Your task to perform on an android device: turn off picture-in-picture Image 0: 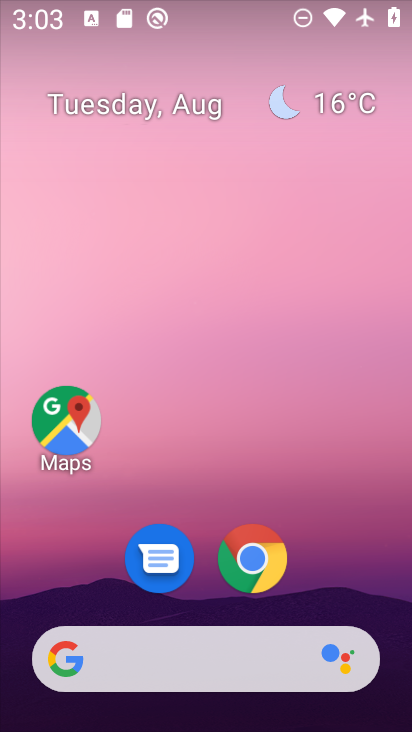
Step 0: click (247, 529)
Your task to perform on an android device: turn off picture-in-picture Image 1: 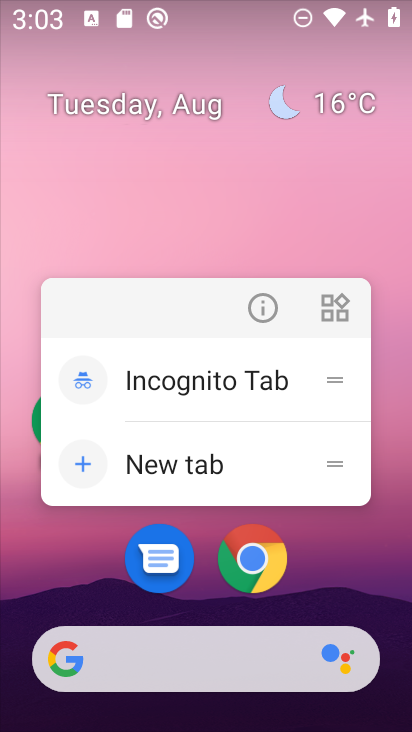
Step 1: click (274, 298)
Your task to perform on an android device: turn off picture-in-picture Image 2: 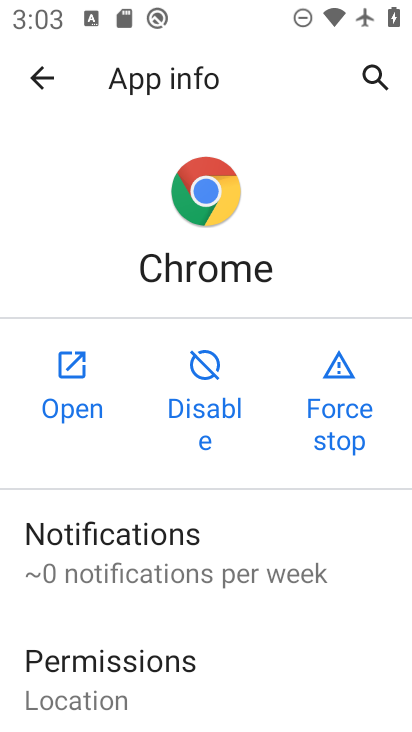
Step 2: drag from (232, 659) to (215, 157)
Your task to perform on an android device: turn off picture-in-picture Image 3: 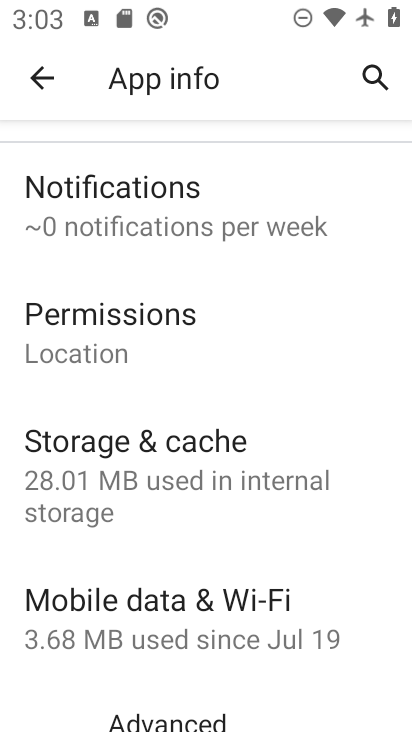
Step 3: drag from (183, 658) to (212, 167)
Your task to perform on an android device: turn off picture-in-picture Image 4: 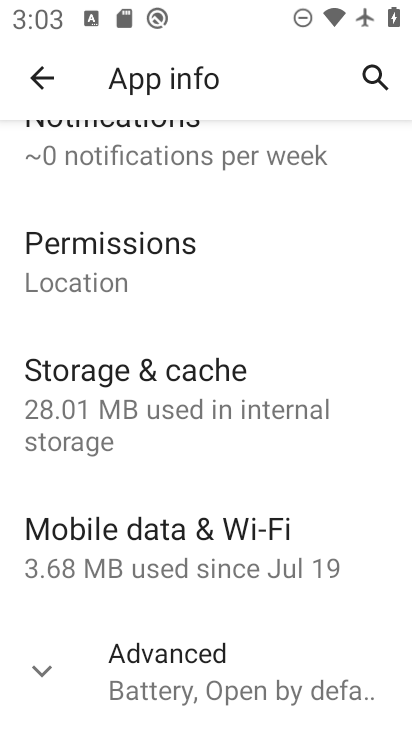
Step 4: click (180, 660)
Your task to perform on an android device: turn off picture-in-picture Image 5: 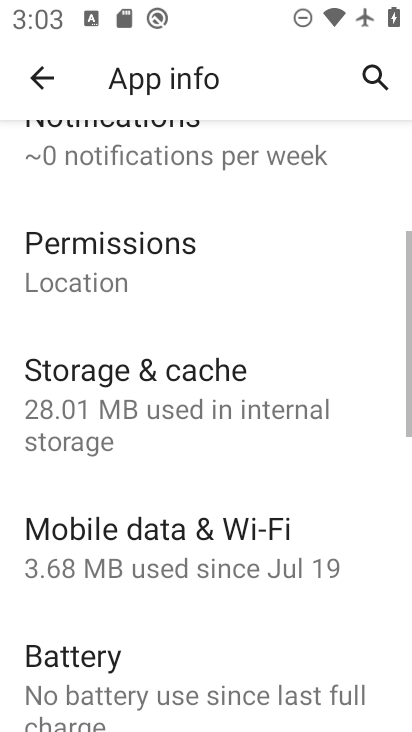
Step 5: drag from (206, 604) to (242, 124)
Your task to perform on an android device: turn off picture-in-picture Image 6: 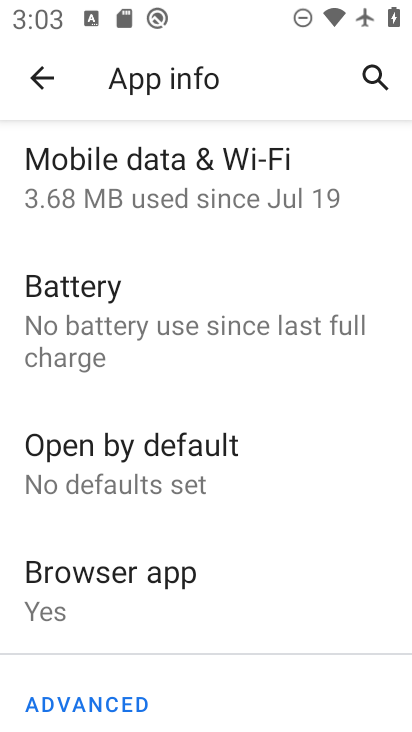
Step 6: drag from (202, 622) to (252, 76)
Your task to perform on an android device: turn off picture-in-picture Image 7: 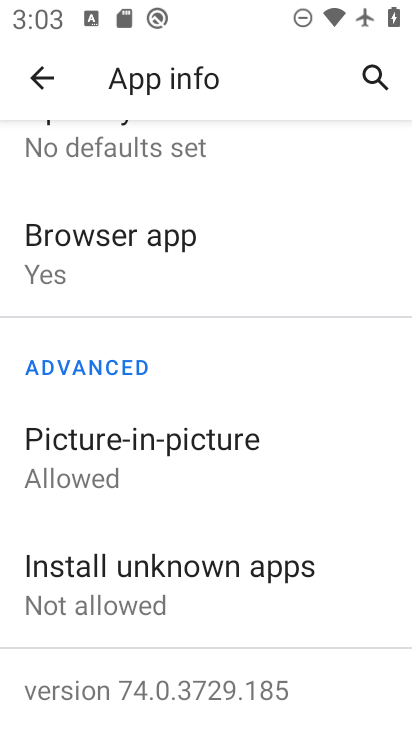
Step 7: click (212, 437)
Your task to perform on an android device: turn off picture-in-picture Image 8: 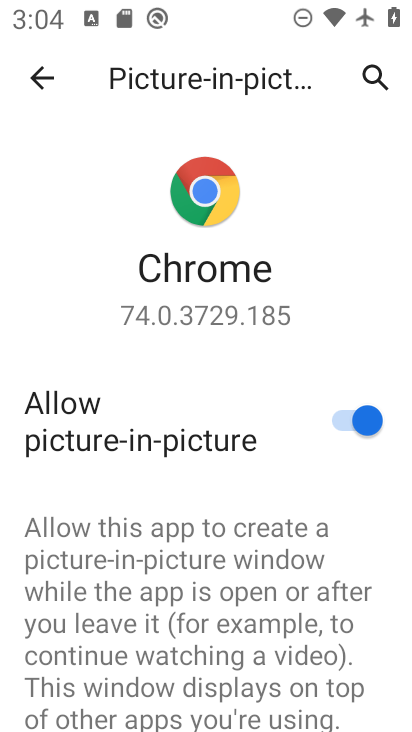
Step 8: click (347, 415)
Your task to perform on an android device: turn off picture-in-picture Image 9: 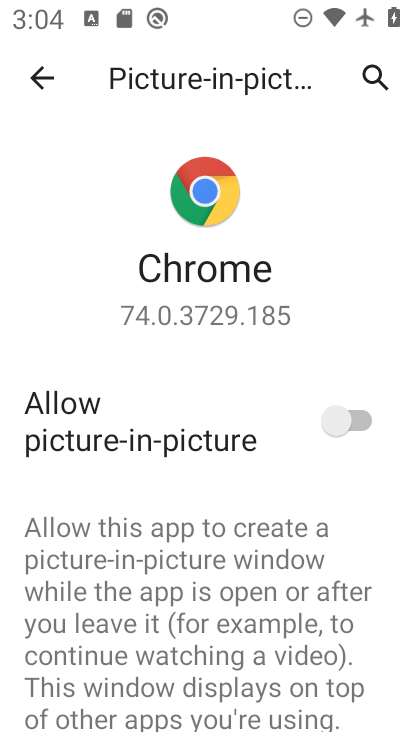
Step 9: task complete